Your task to perform on an android device: delete location history Image 0: 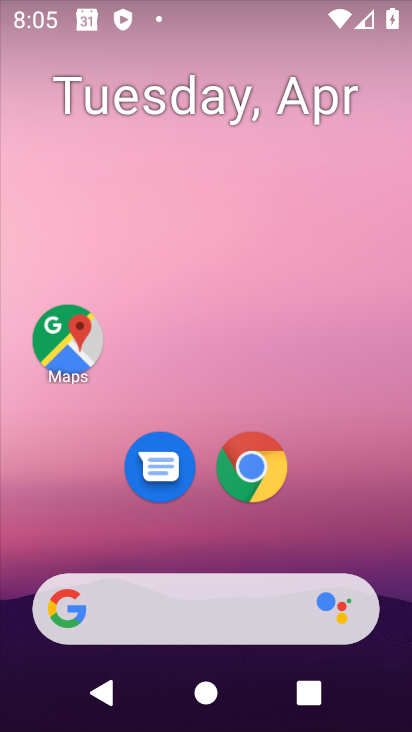
Step 0: click (65, 343)
Your task to perform on an android device: delete location history Image 1: 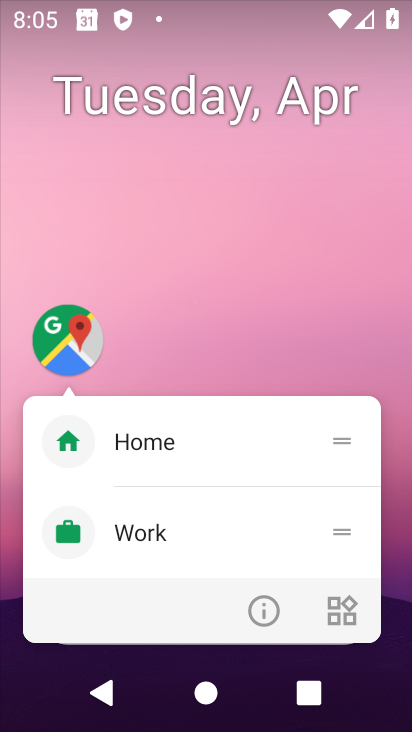
Step 1: click (64, 342)
Your task to perform on an android device: delete location history Image 2: 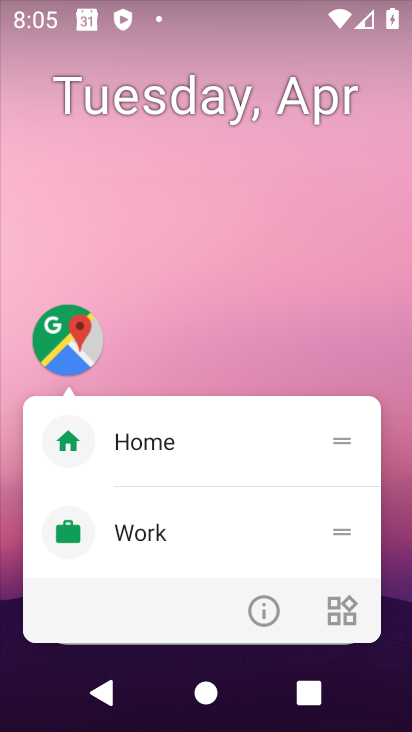
Step 2: click (64, 341)
Your task to perform on an android device: delete location history Image 3: 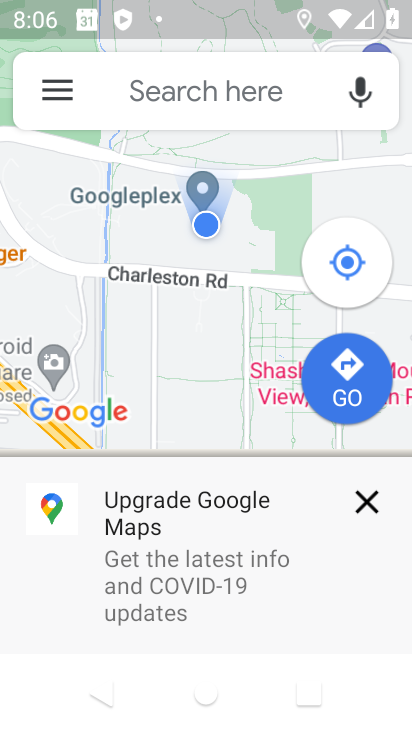
Step 3: click (64, 95)
Your task to perform on an android device: delete location history Image 4: 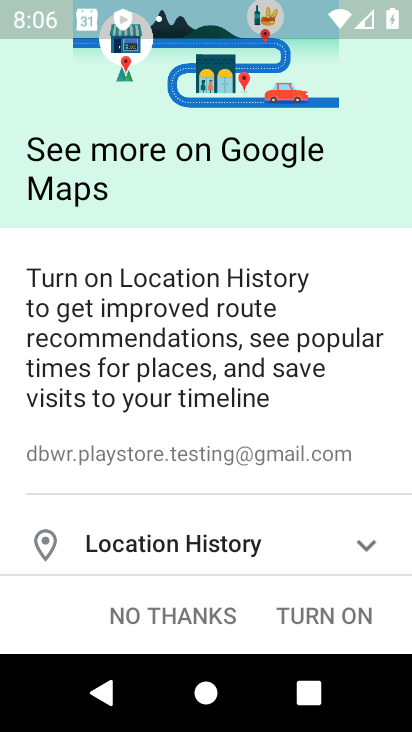
Step 4: click (169, 618)
Your task to perform on an android device: delete location history Image 5: 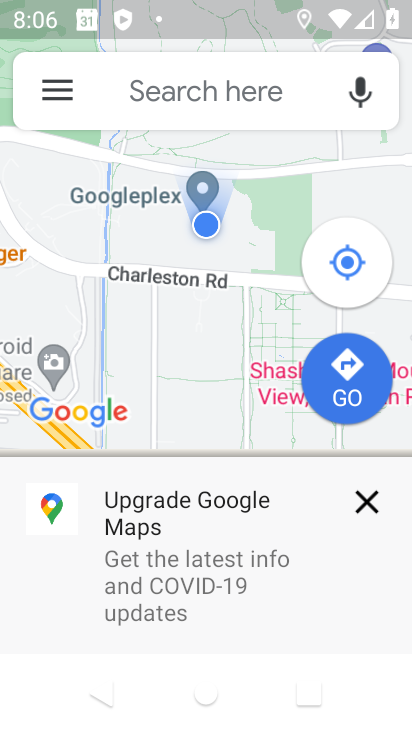
Step 5: click (64, 96)
Your task to perform on an android device: delete location history Image 6: 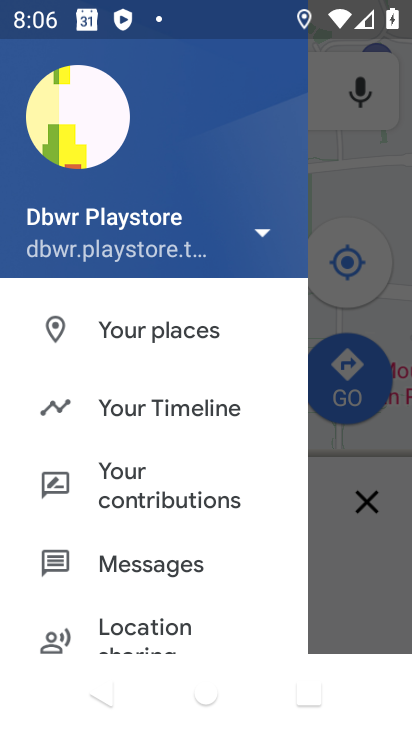
Step 6: click (114, 417)
Your task to perform on an android device: delete location history Image 7: 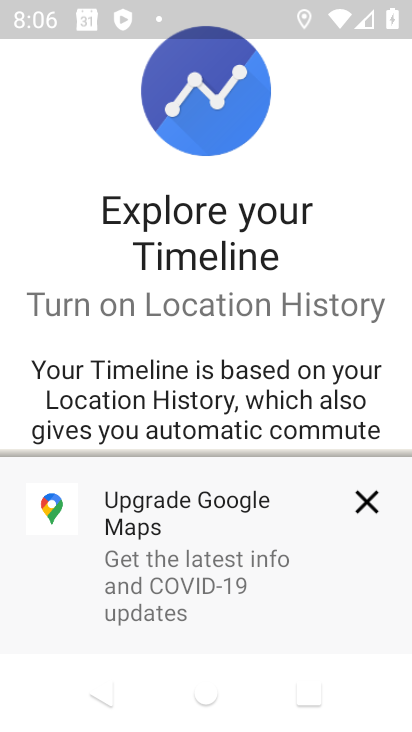
Step 7: click (376, 508)
Your task to perform on an android device: delete location history Image 8: 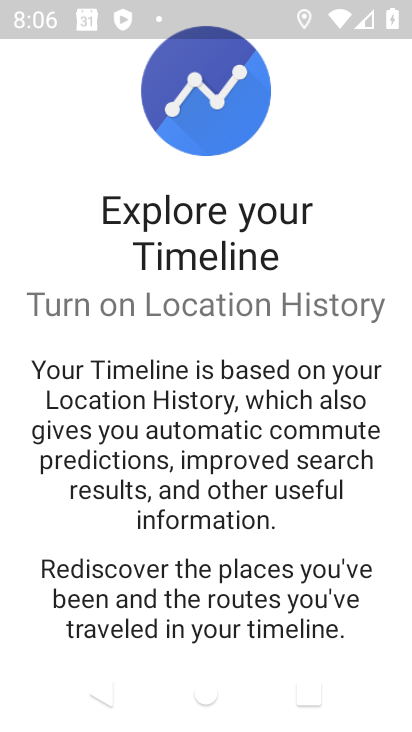
Step 8: drag from (275, 480) to (257, 136)
Your task to perform on an android device: delete location history Image 9: 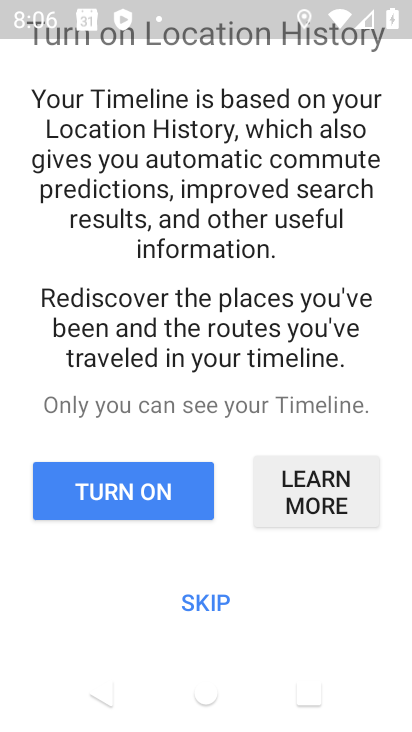
Step 9: click (210, 592)
Your task to perform on an android device: delete location history Image 10: 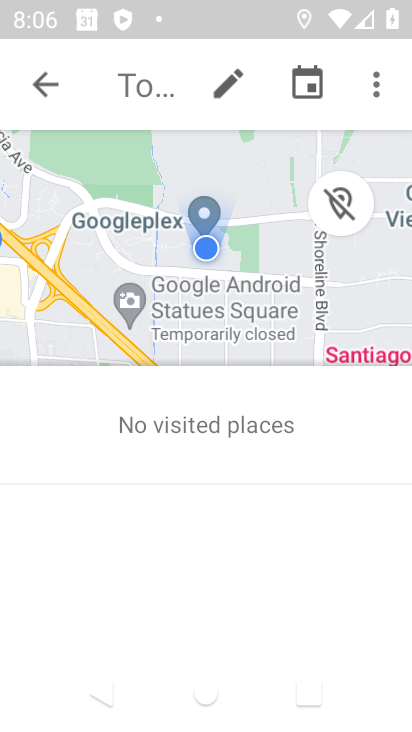
Step 10: click (380, 87)
Your task to perform on an android device: delete location history Image 11: 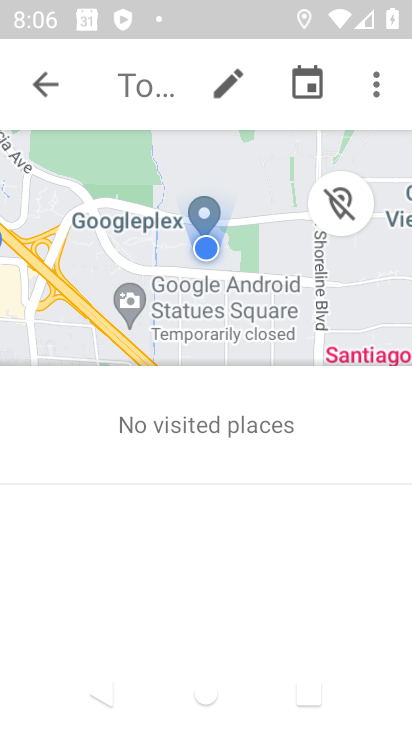
Step 11: click (380, 89)
Your task to perform on an android device: delete location history Image 12: 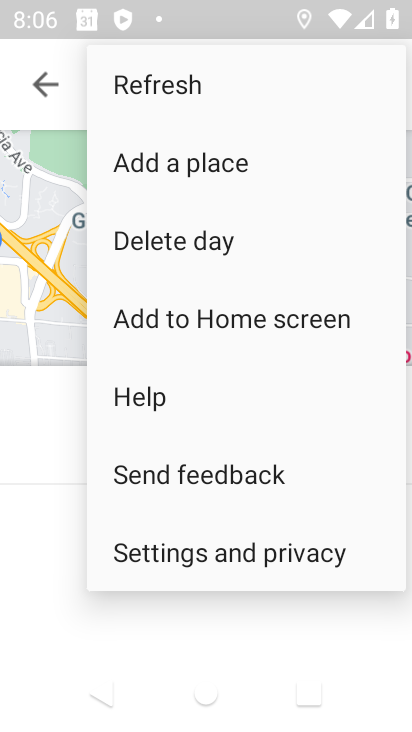
Step 12: click (174, 556)
Your task to perform on an android device: delete location history Image 13: 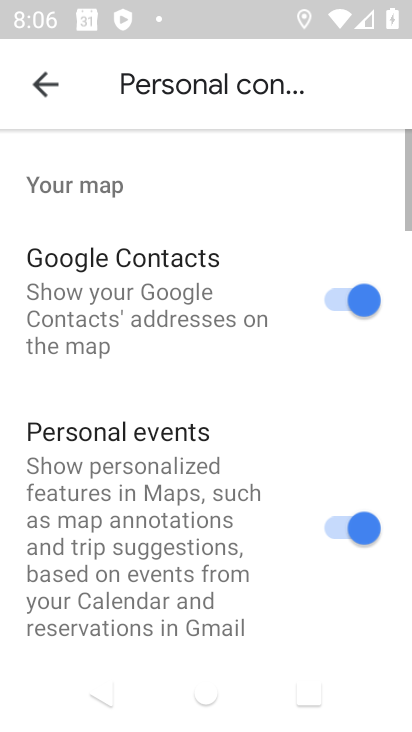
Step 13: drag from (174, 538) to (173, 198)
Your task to perform on an android device: delete location history Image 14: 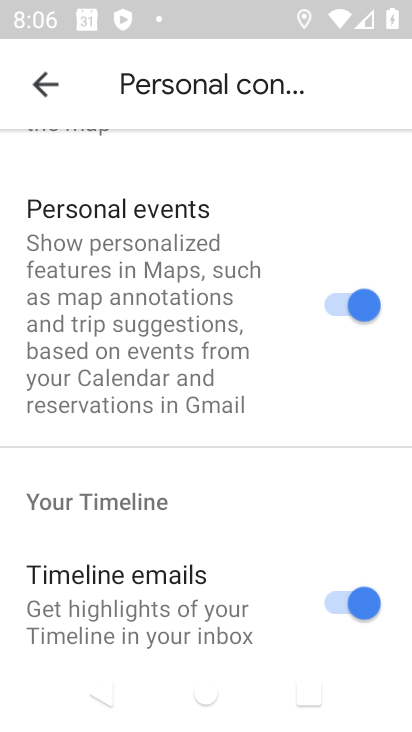
Step 14: drag from (190, 455) to (168, 129)
Your task to perform on an android device: delete location history Image 15: 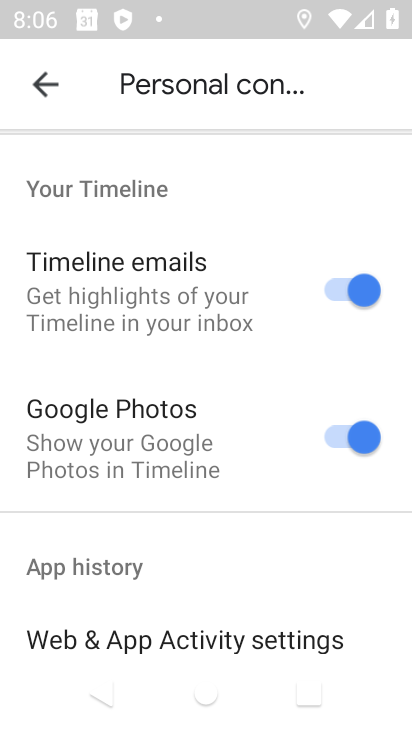
Step 15: drag from (187, 485) to (169, 136)
Your task to perform on an android device: delete location history Image 16: 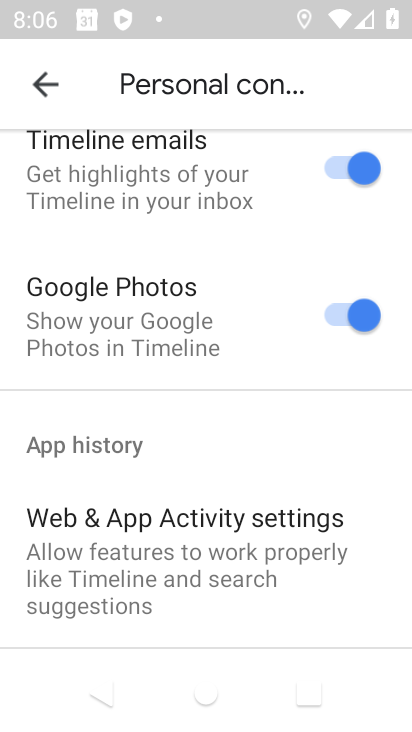
Step 16: drag from (192, 486) to (165, 179)
Your task to perform on an android device: delete location history Image 17: 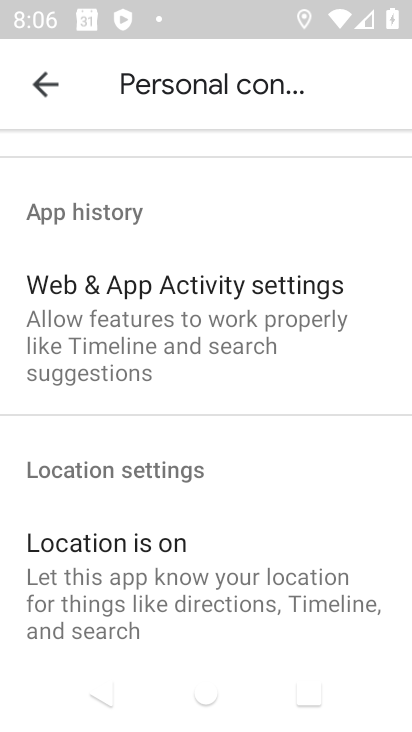
Step 17: drag from (187, 403) to (171, 201)
Your task to perform on an android device: delete location history Image 18: 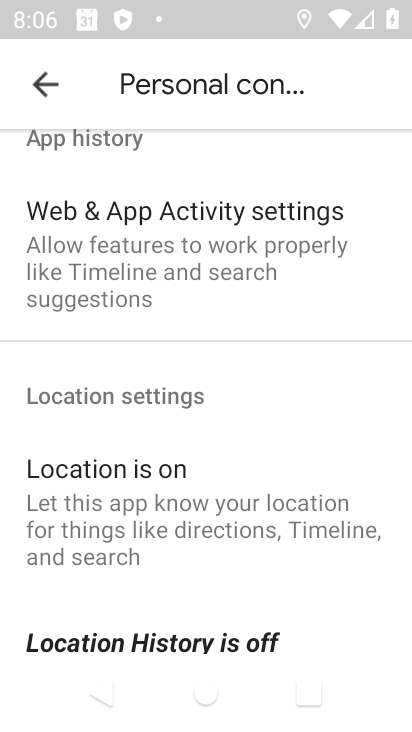
Step 18: drag from (190, 501) to (161, 209)
Your task to perform on an android device: delete location history Image 19: 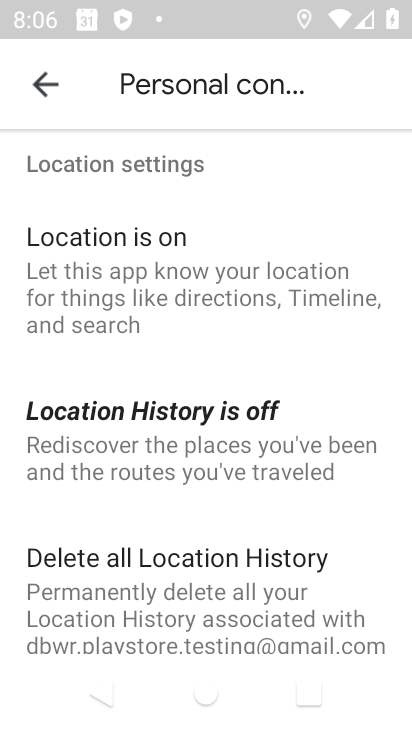
Step 19: click (135, 567)
Your task to perform on an android device: delete location history Image 20: 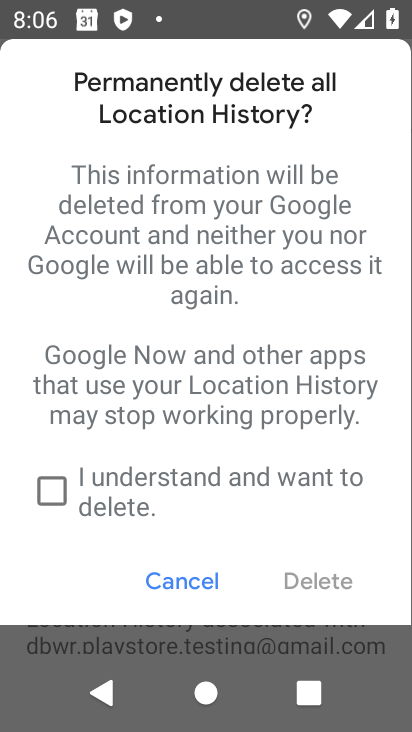
Step 20: click (55, 490)
Your task to perform on an android device: delete location history Image 21: 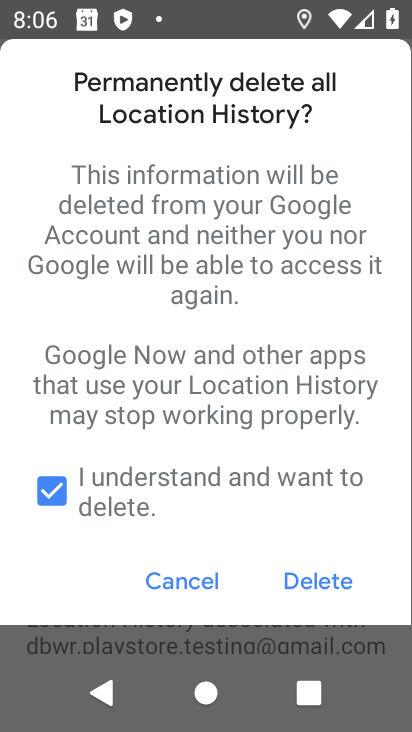
Step 21: click (301, 580)
Your task to perform on an android device: delete location history Image 22: 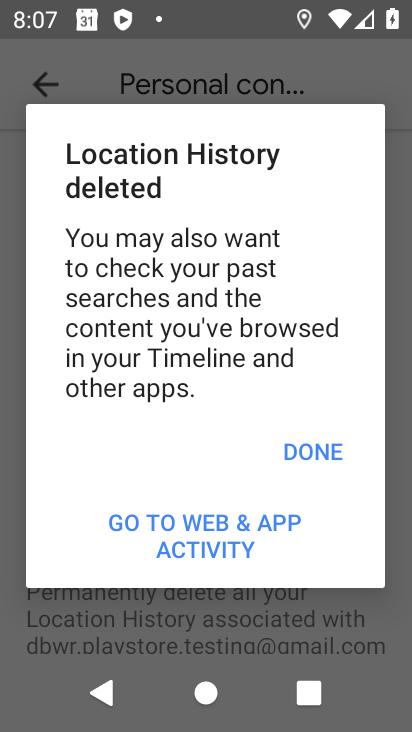
Step 22: click (293, 453)
Your task to perform on an android device: delete location history Image 23: 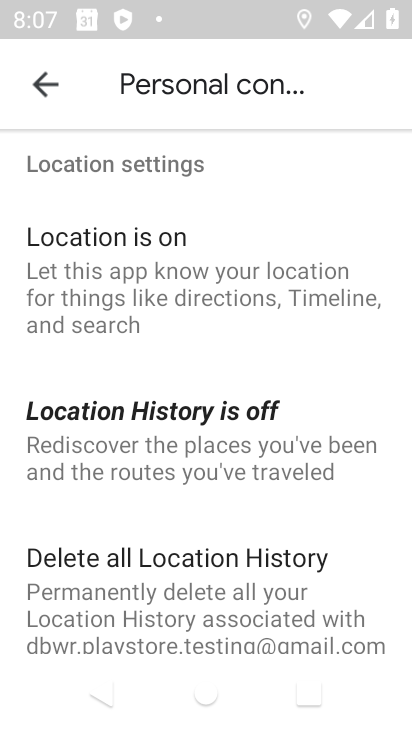
Step 23: task complete